Your task to perform on an android device: Show me recent news Image 0: 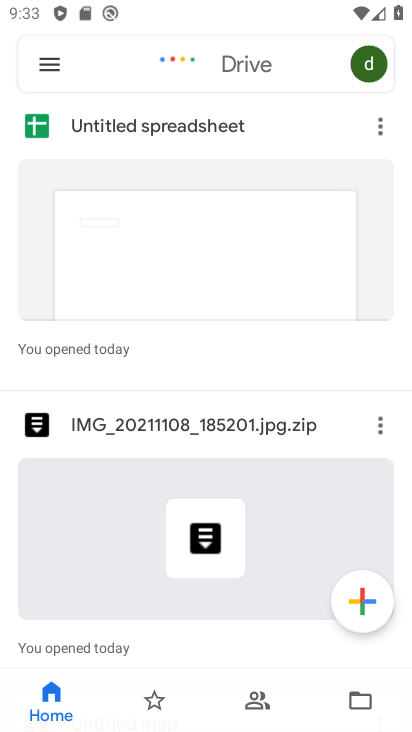
Step 0: press home button
Your task to perform on an android device: Show me recent news Image 1: 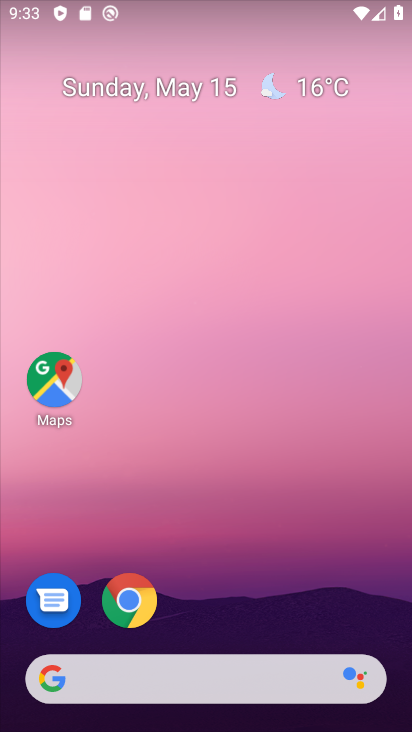
Step 1: click (192, 665)
Your task to perform on an android device: Show me recent news Image 2: 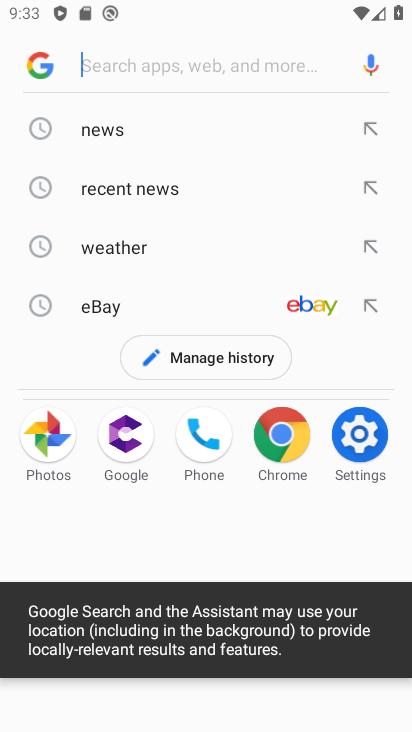
Step 2: click (93, 135)
Your task to perform on an android device: Show me recent news Image 3: 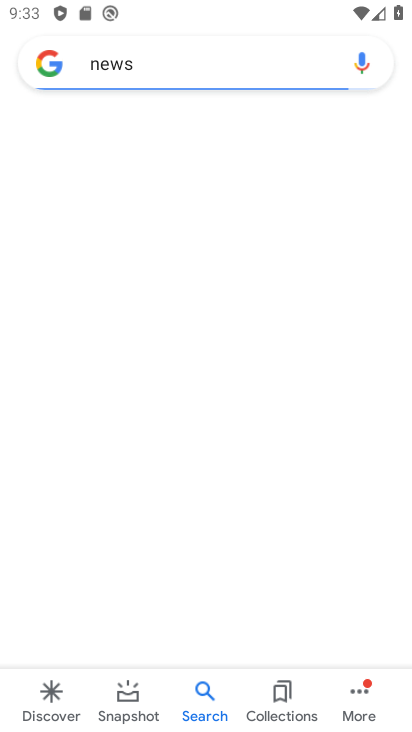
Step 3: task complete